Your task to perform on an android device: delete the emails in spam in the gmail app Image 0: 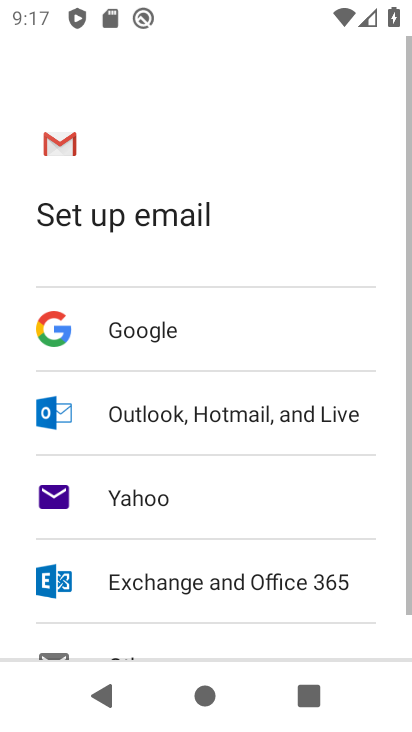
Step 0: press home button
Your task to perform on an android device: delete the emails in spam in the gmail app Image 1: 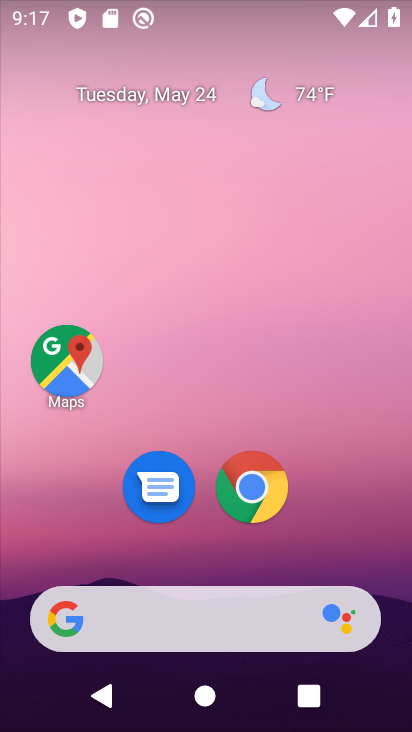
Step 1: drag from (364, 568) to (396, 5)
Your task to perform on an android device: delete the emails in spam in the gmail app Image 2: 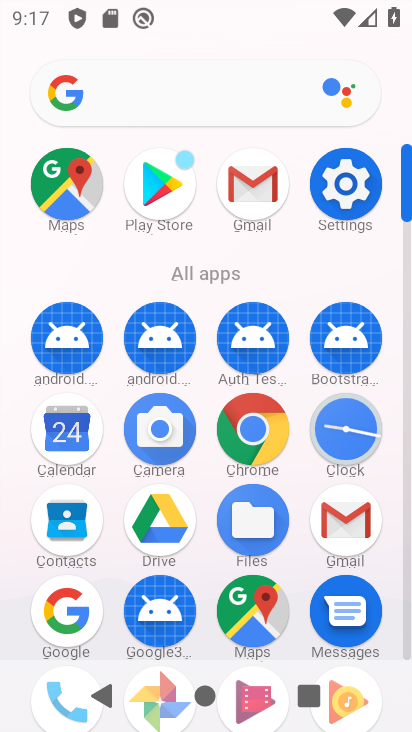
Step 2: click (260, 198)
Your task to perform on an android device: delete the emails in spam in the gmail app Image 3: 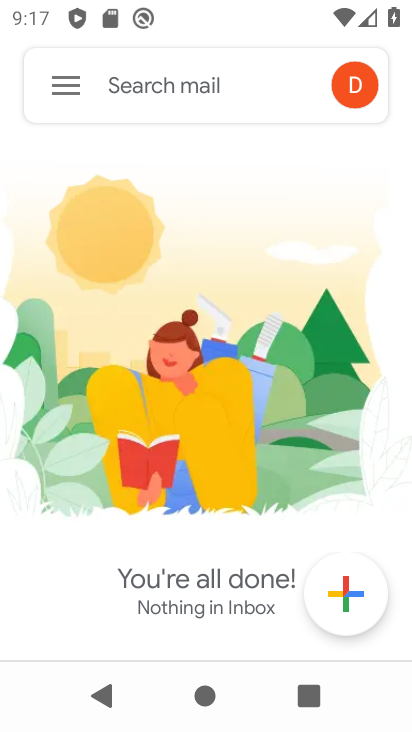
Step 3: click (60, 84)
Your task to perform on an android device: delete the emails in spam in the gmail app Image 4: 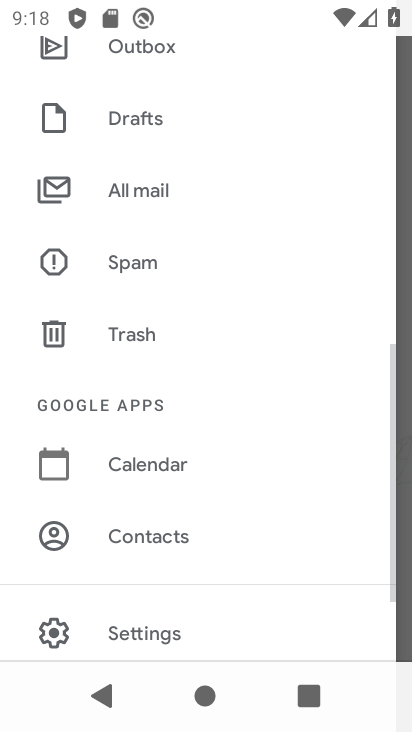
Step 4: click (109, 265)
Your task to perform on an android device: delete the emails in spam in the gmail app Image 5: 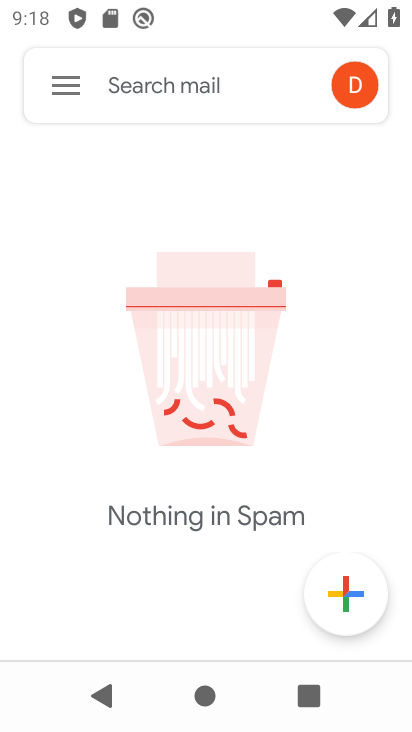
Step 5: task complete